Your task to perform on an android device: visit the assistant section in the google photos Image 0: 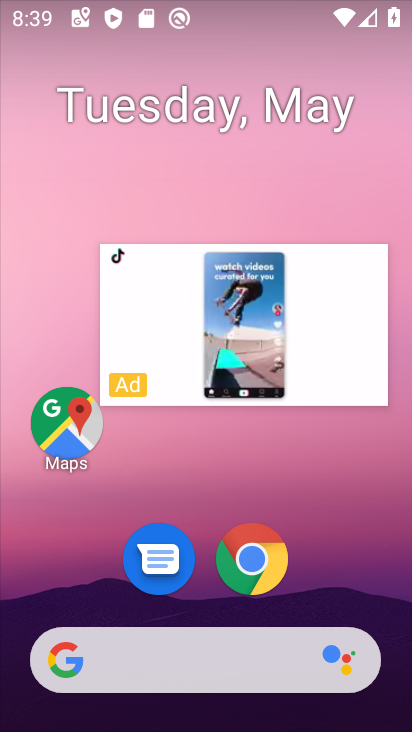
Step 0: drag from (298, 305) to (83, 730)
Your task to perform on an android device: visit the assistant section in the google photos Image 1: 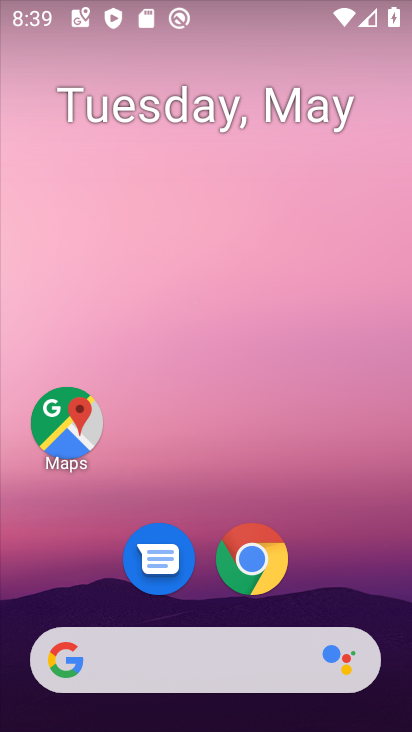
Step 1: drag from (214, 649) to (240, 138)
Your task to perform on an android device: visit the assistant section in the google photos Image 2: 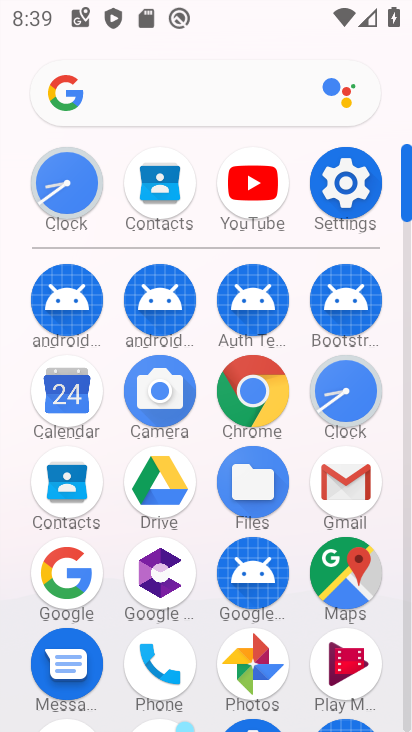
Step 2: click (261, 658)
Your task to perform on an android device: visit the assistant section in the google photos Image 3: 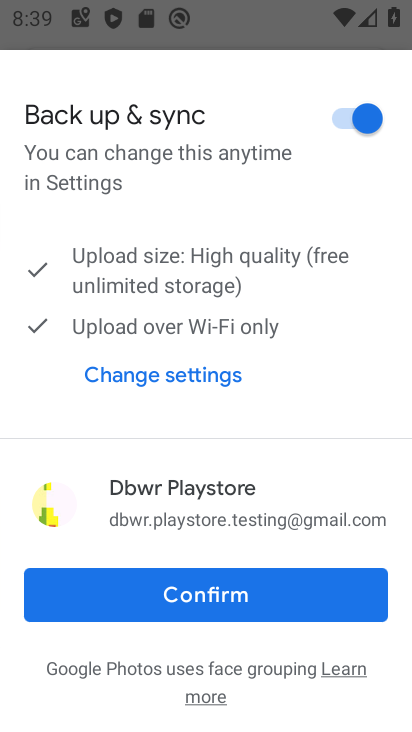
Step 3: click (223, 613)
Your task to perform on an android device: visit the assistant section in the google photos Image 4: 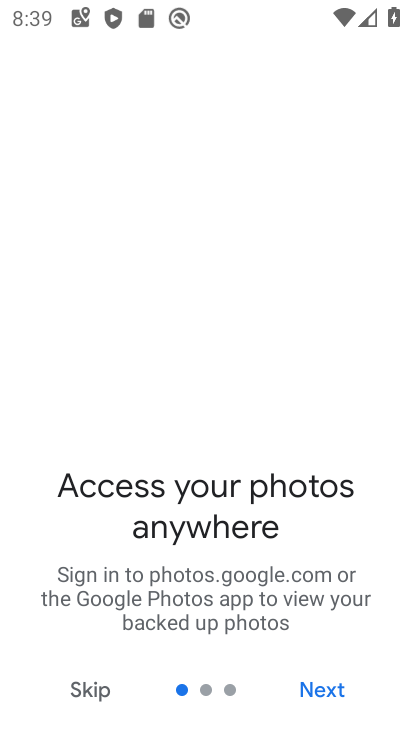
Step 4: click (73, 683)
Your task to perform on an android device: visit the assistant section in the google photos Image 5: 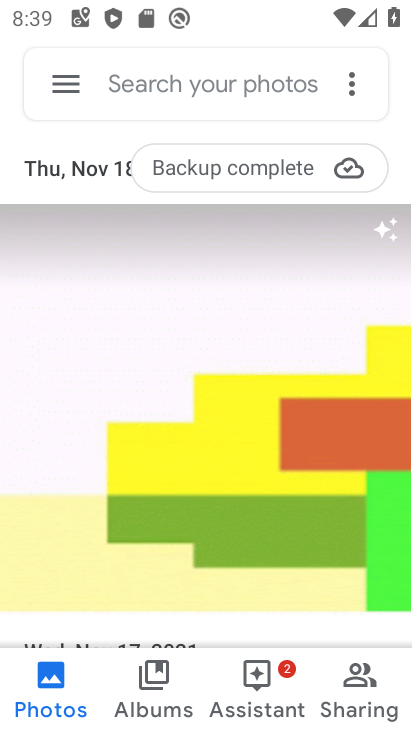
Step 5: click (258, 677)
Your task to perform on an android device: visit the assistant section in the google photos Image 6: 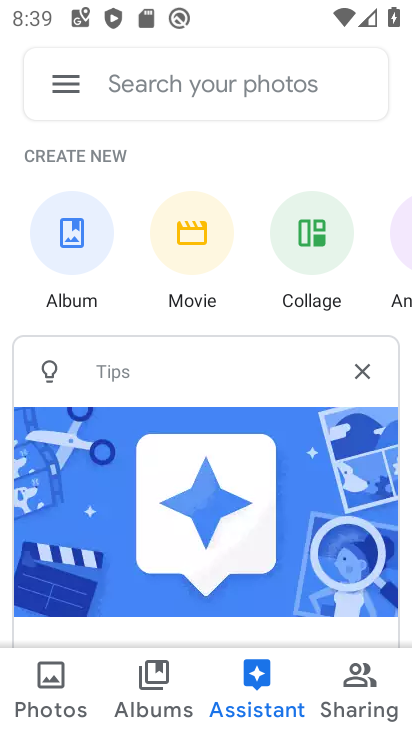
Step 6: task complete